Your task to perform on an android device: Go to sound settings Image 0: 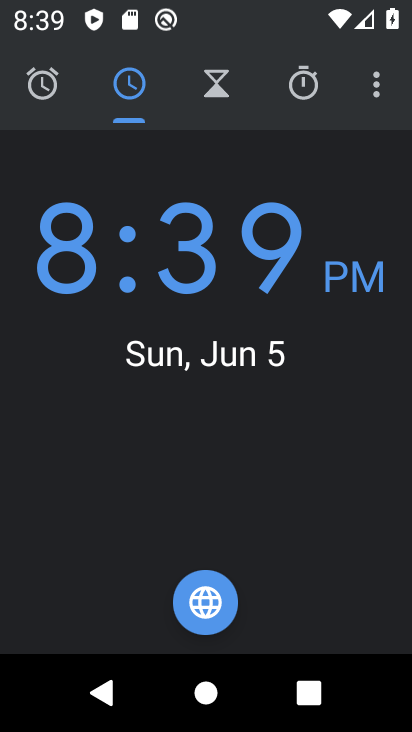
Step 0: press home button
Your task to perform on an android device: Go to sound settings Image 1: 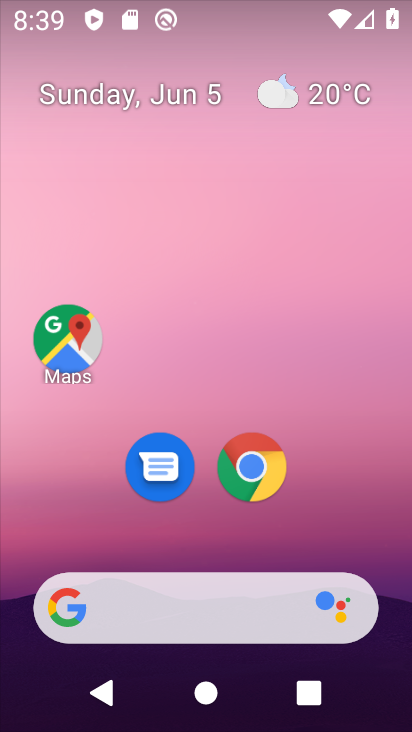
Step 1: drag from (364, 532) to (369, 26)
Your task to perform on an android device: Go to sound settings Image 2: 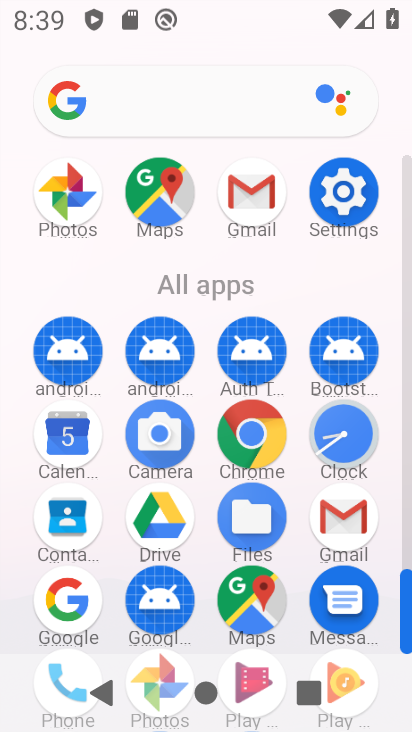
Step 2: click (344, 187)
Your task to perform on an android device: Go to sound settings Image 3: 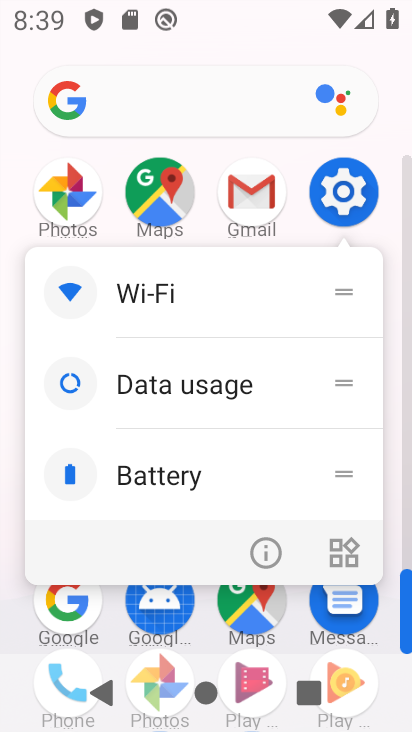
Step 3: click (343, 175)
Your task to perform on an android device: Go to sound settings Image 4: 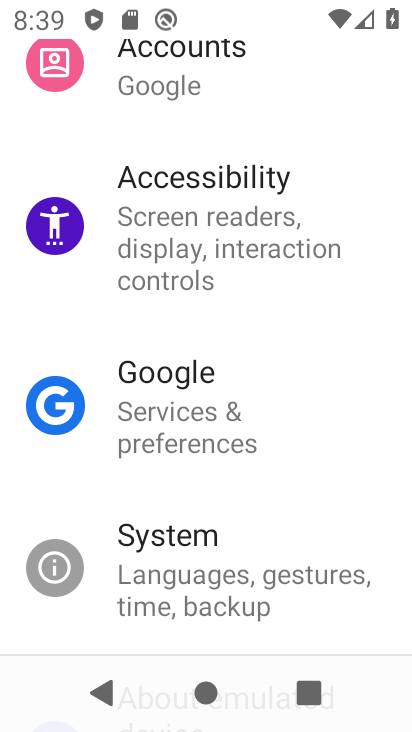
Step 4: drag from (245, 203) to (327, 650)
Your task to perform on an android device: Go to sound settings Image 5: 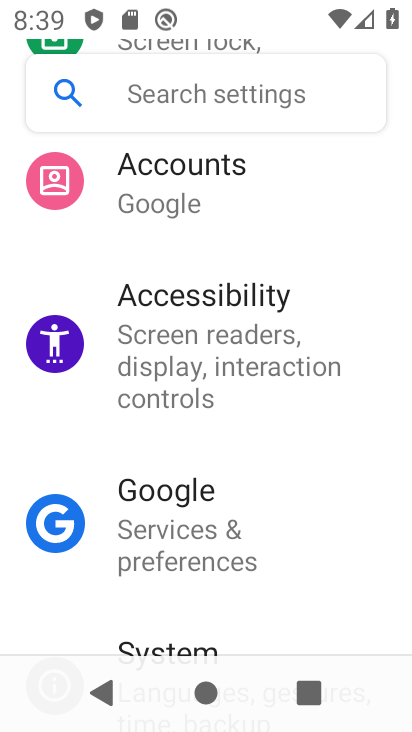
Step 5: drag from (227, 285) to (237, 680)
Your task to perform on an android device: Go to sound settings Image 6: 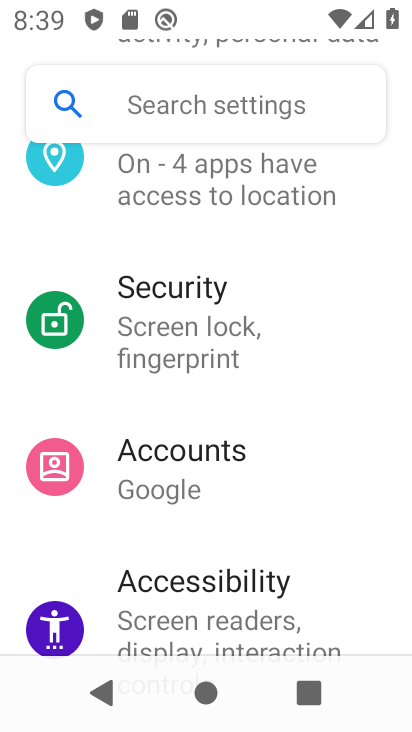
Step 6: drag from (236, 299) to (278, 729)
Your task to perform on an android device: Go to sound settings Image 7: 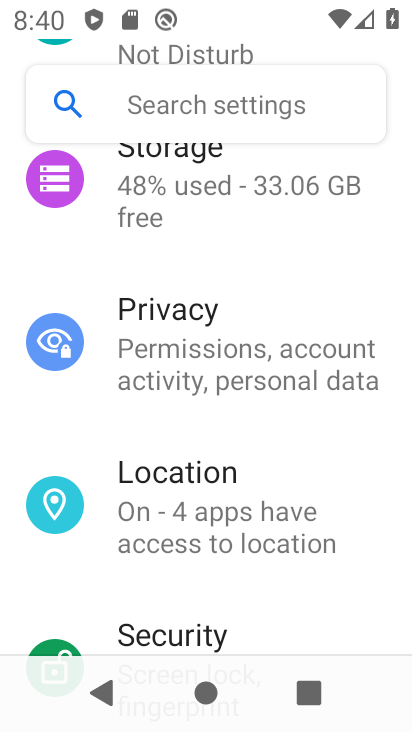
Step 7: drag from (205, 412) to (269, 713)
Your task to perform on an android device: Go to sound settings Image 8: 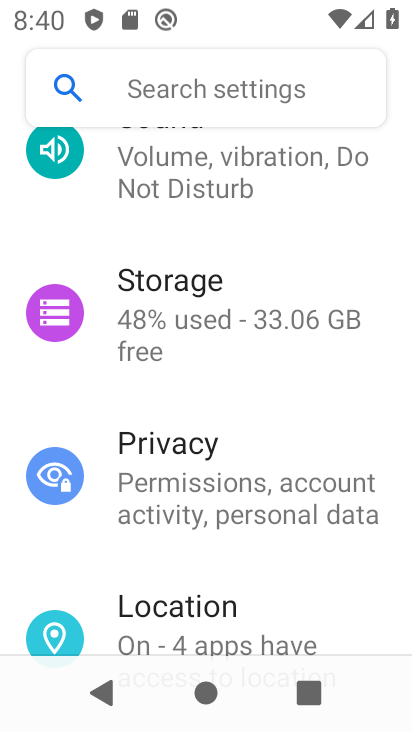
Step 8: drag from (252, 243) to (316, 674)
Your task to perform on an android device: Go to sound settings Image 9: 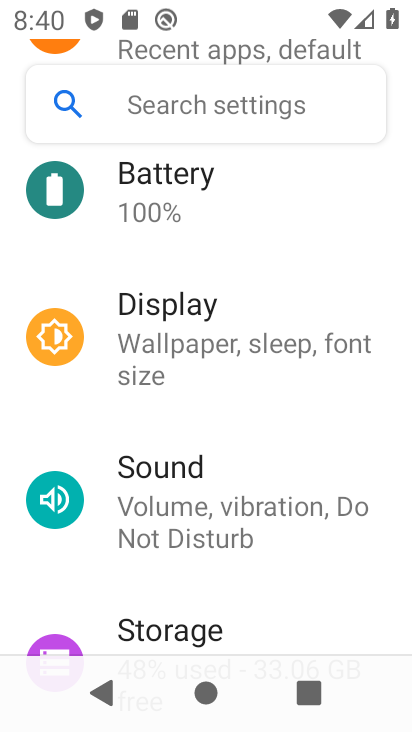
Step 9: drag from (198, 251) to (226, 443)
Your task to perform on an android device: Go to sound settings Image 10: 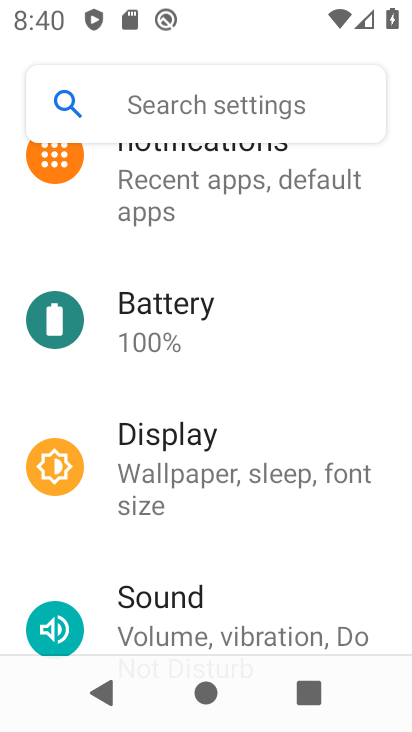
Step 10: click (152, 605)
Your task to perform on an android device: Go to sound settings Image 11: 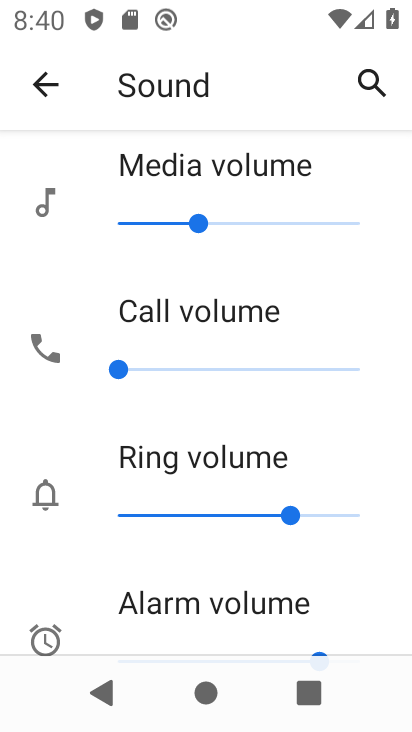
Step 11: task complete